Your task to perform on an android device: turn off picture-in-picture Image 0: 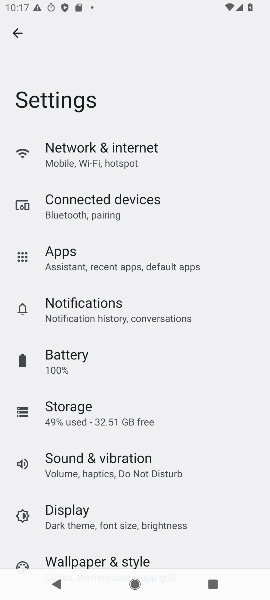
Step 0: press home button
Your task to perform on an android device: turn off picture-in-picture Image 1: 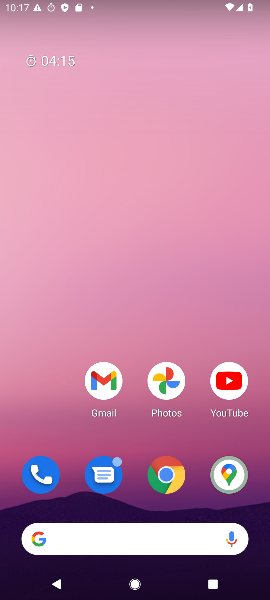
Step 1: click (156, 490)
Your task to perform on an android device: turn off picture-in-picture Image 2: 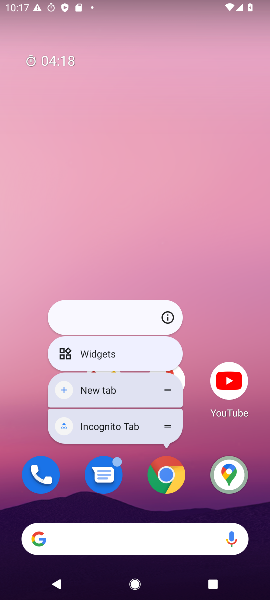
Step 2: click (169, 315)
Your task to perform on an android device: turn off picture-in-picture Image 3: 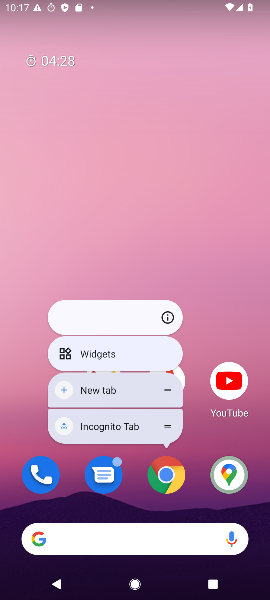
Step 3: click (160, 314)
Your task to perform on an android device: turn off picture-in-picture Image 4: 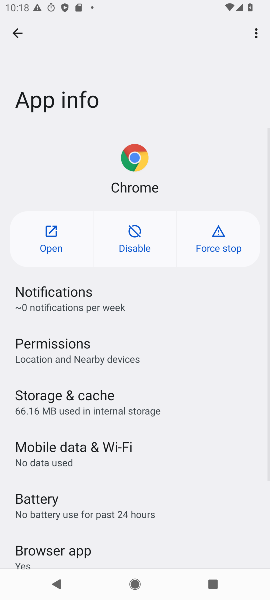
Step 4: drag from (99, 476) to (123, 187)
Your task to perform on an android device: turn off picture-in-picture Image 5: 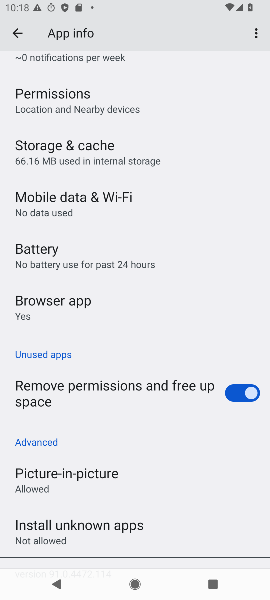
Step 5: click (61, 479)
Your task to perform on an android device: turn off picture-in-picture Image 6: 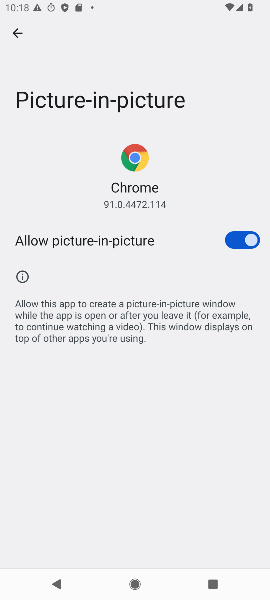
Step 6: click (231, 237)
Your task to perform on an android device: turn off picture-in-picture Image 7: 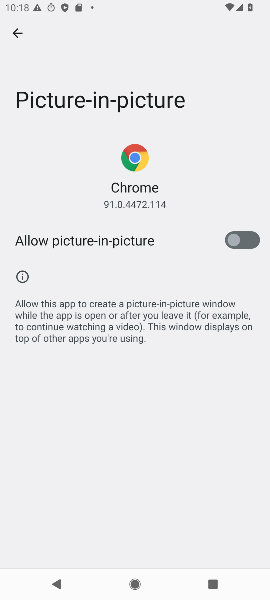
Step 7: task complete